Your task to perform on an android device: Open privacy settings Image 0: 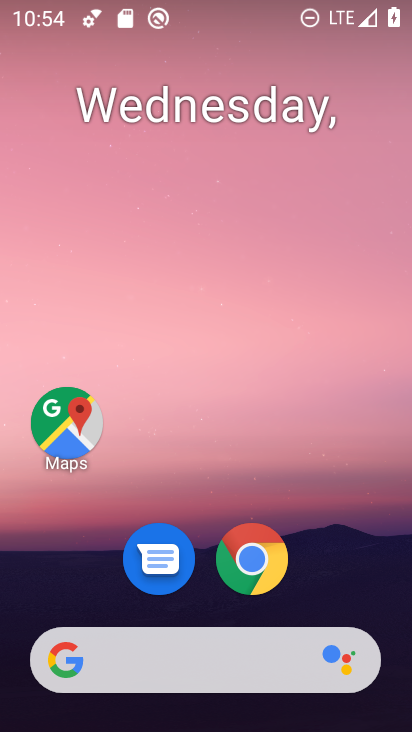
Step 0: drag from (358, 578) to (350, 135)
Your task to perform on an android device: Open privacy settings Image 1: 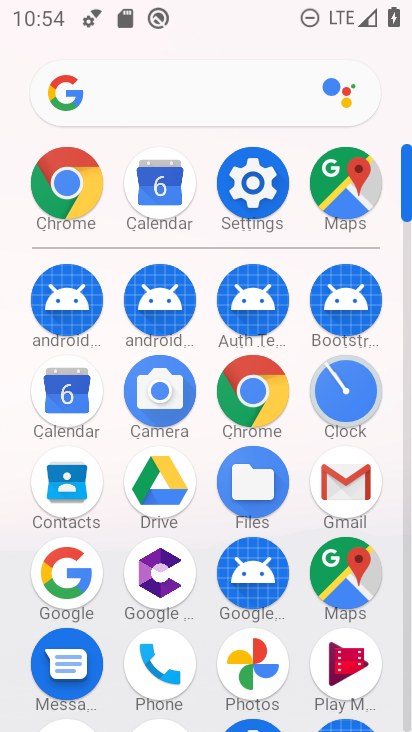
Step 1: click (261, 194)
Your task to perform on an android device: Open privacy settings Image 2: 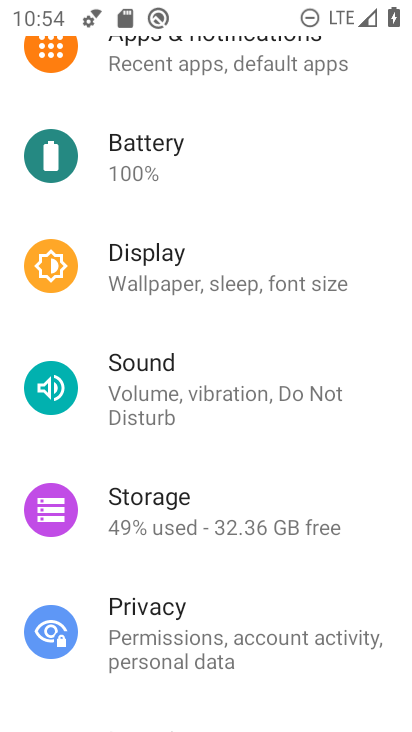
Step 2: drag from (381, 499) to (375, 271)
Your task to perform on an android device: Open privacy settings Image 3: 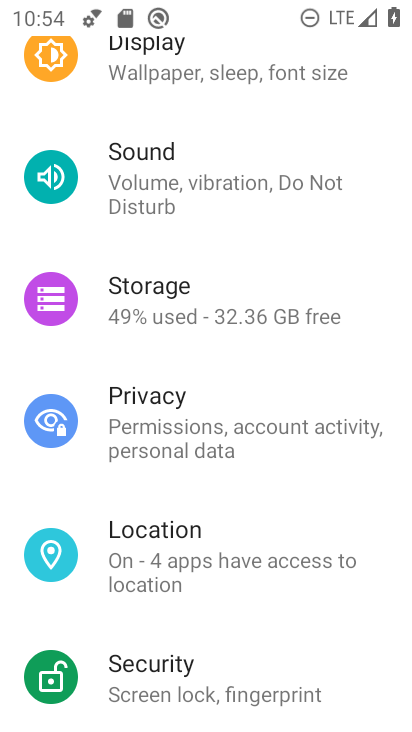
Step 3: drag from (372, 623) to (370, 421)
Your task to perform on an android device: Open privacy settings Image 4: 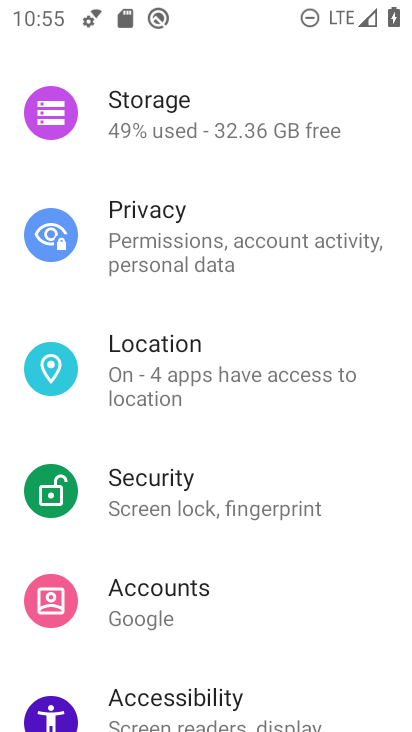
Step 4: drag from (356, 594) to (349, 370)
Your task to perform on an android device: Open privacy settings Image 5: 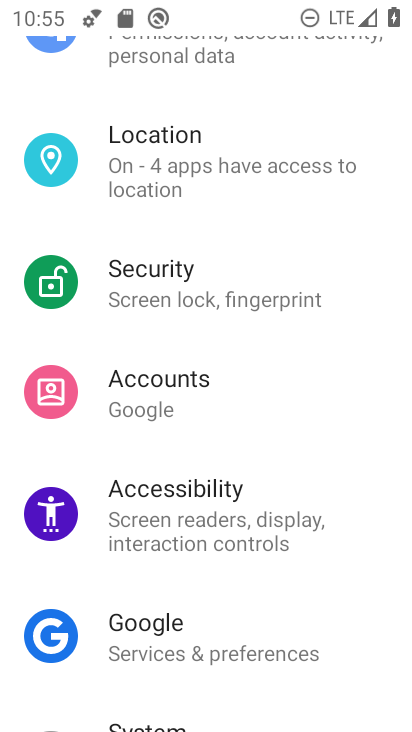
Step 5: drag from (360, 518) to (350, 307)
Your task to perform on an android device: Open privacy settings Image 6: 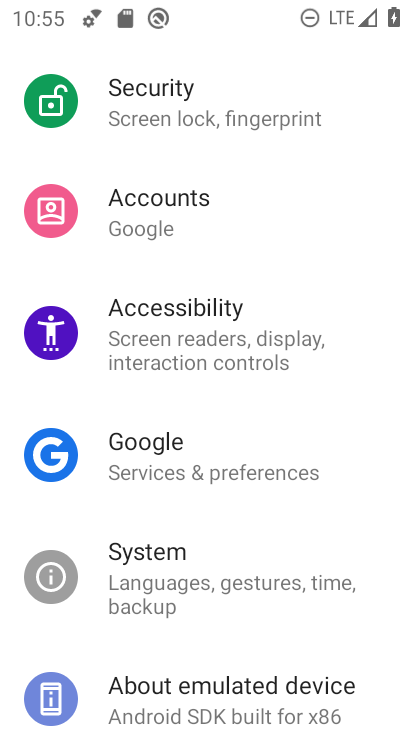
Step 6: drag from (362, 274) to (360, 443)
Your task to perform on an android device: Open privacy settings Image 7: 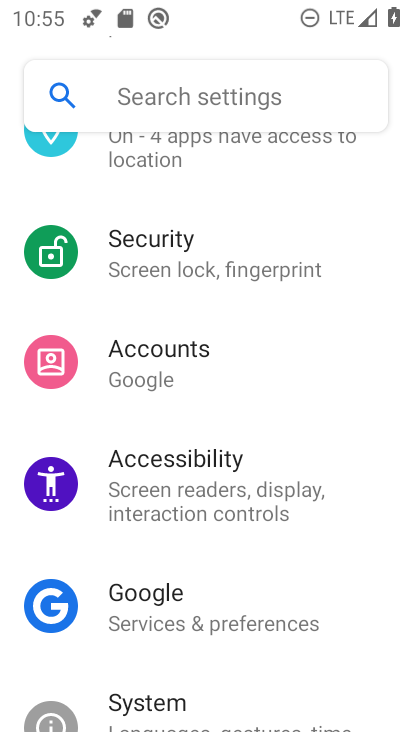
Step 7: drag from (347, 252) to (351, 389)
Your task to perform on an android device: Open privacy settings Image 8: 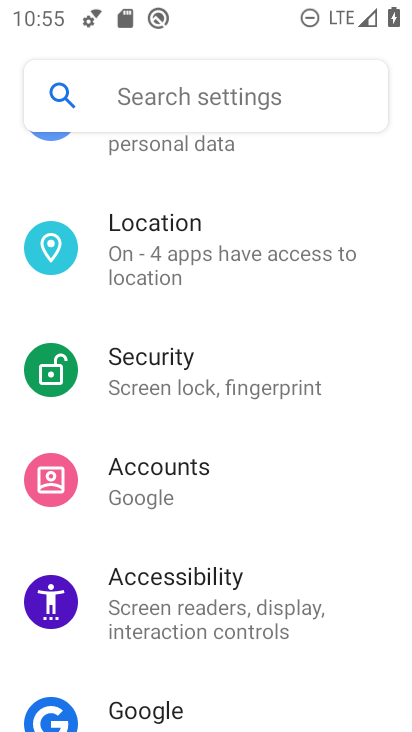
Step 8: drag from (340, 228) to (350, 392)
Your task to perform on an android device: Open privacy settings Image 9: 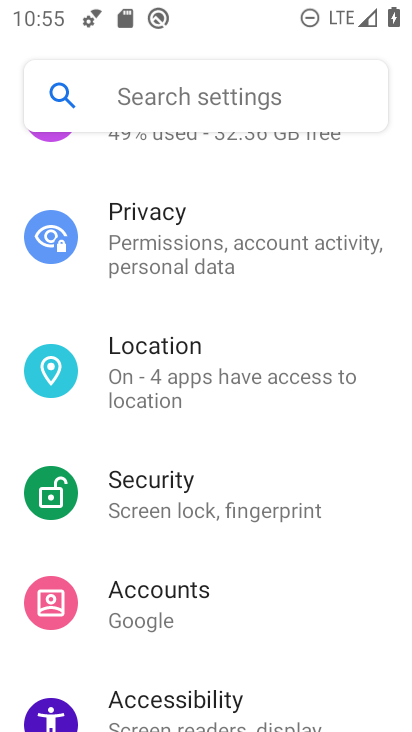
Step 9: click (229, 259)
Your task to perform on an android device: Open privacy settings Image 10: 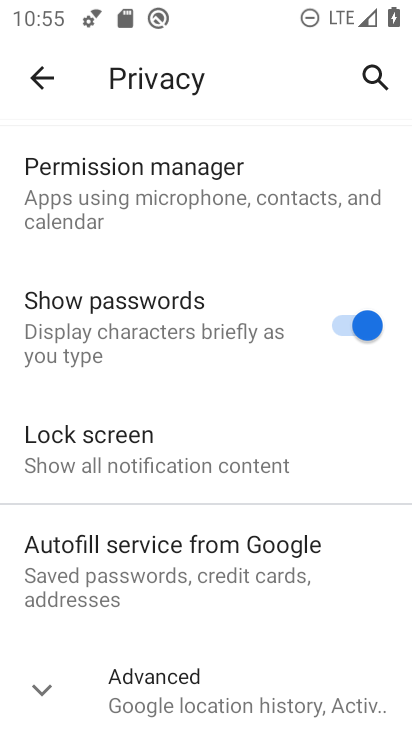
Step 10: task complete